Your task to perform on an android device: Show me popular games on the Play Store Image 0: 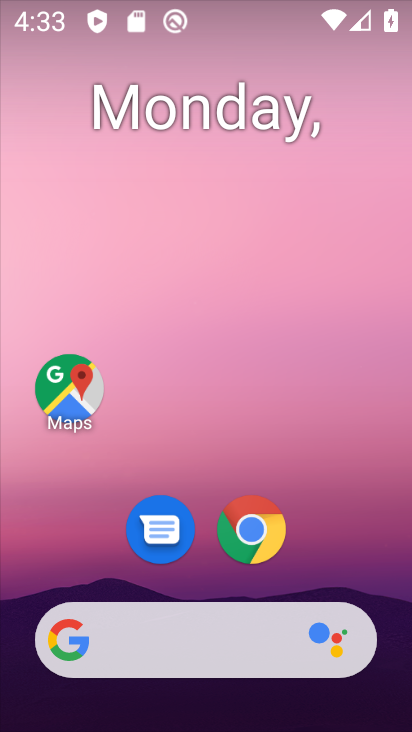
Step 0: drag from (373, 544) to (246, 74)
Your task to perform on an android device: Show me popular games on the Play Store Image 1: 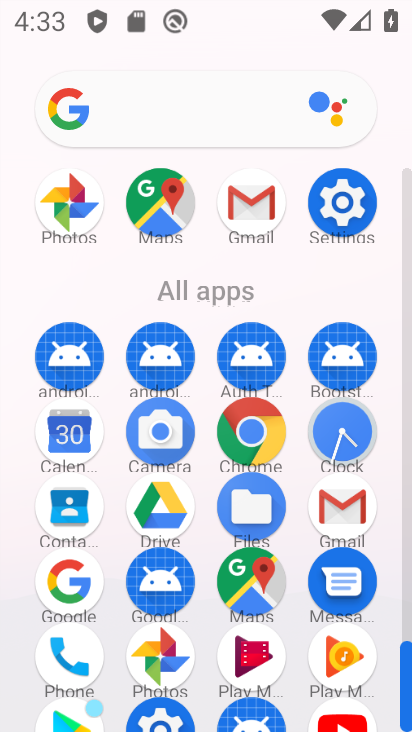
Step 1: click (60, 717)
Your task to perform on an android device: Show me popular games on the Play Store Image 2: 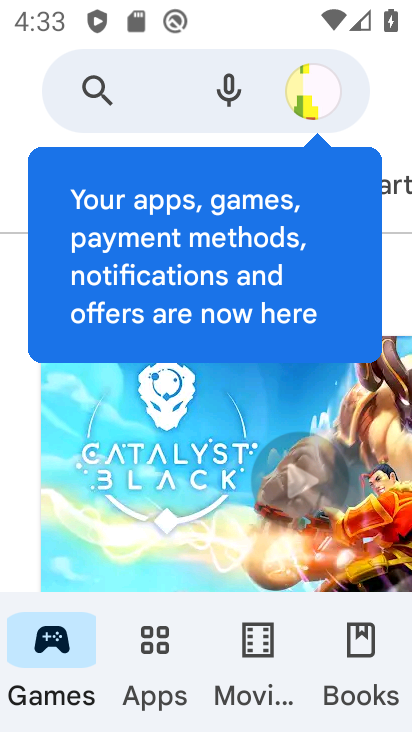
Step 2: drag from (258, 590) to (236, 188)
Your task to perform on an android device: Show me popular games on the Play Store Image 3: 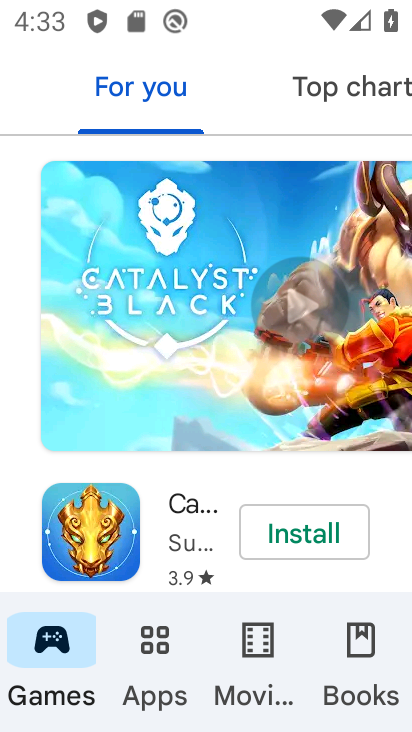
Step 3: drag from (203, 574) to (158, 251)
Your task to perform on an android device: Show me popular games on the Play Store Image 4: 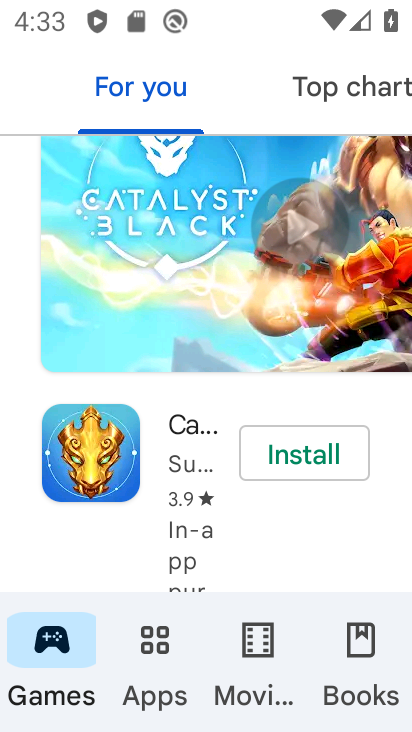
Step 4: drag from (250, 565) to (217, 157)
Your task to perform on an android device: Show me popular games on the Play Store Image 5: 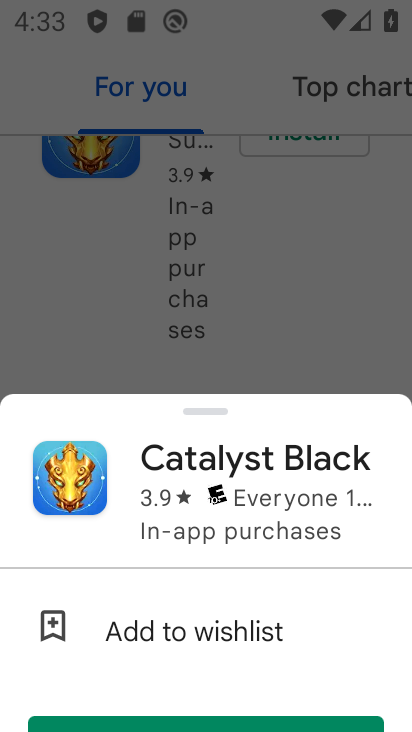
Step 5: click (288, 383)
Your task to perform on an android device: Show me popular games on the Play Store Image 6: 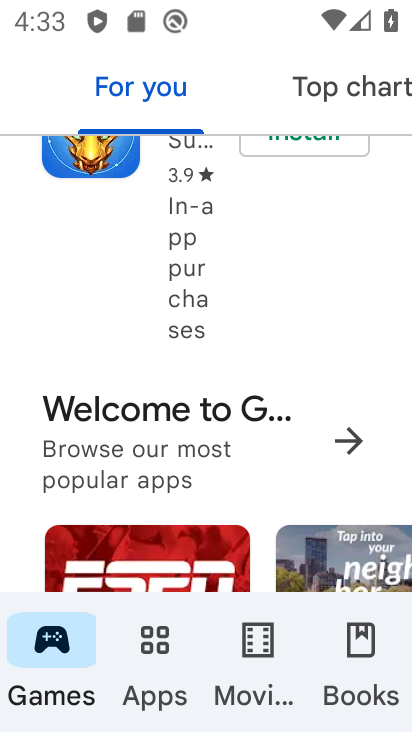
Step 6: drag from (280, 422) to (240, 171)
Your task to perform on an android device: Show me popular games on the Play Store Image 7: 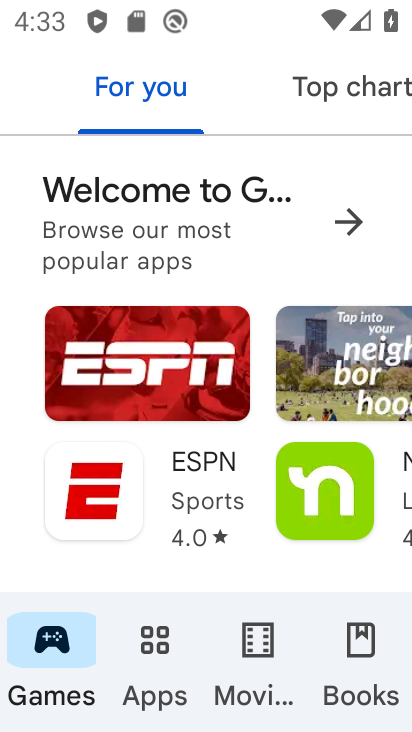
Step 7: drag from (256, 574) to (238, 100)
Your task to perform on an android device: Show me popular games on the Play Store Image 8: 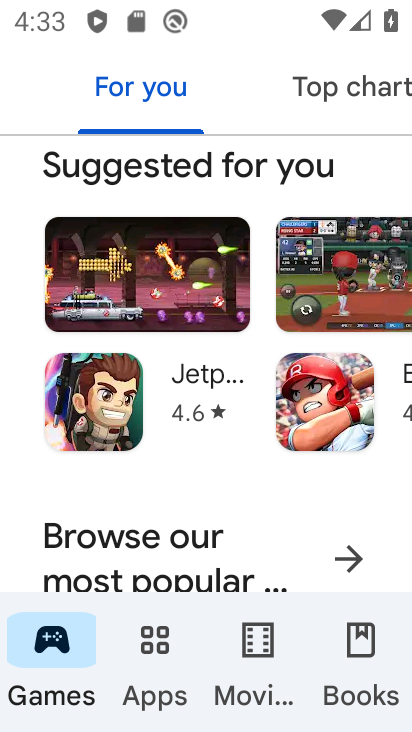
Step 8: drag from (238, 100) to (232, 21)
Your task to perform on an android device: Show me popular games on the Play Store Image 9: 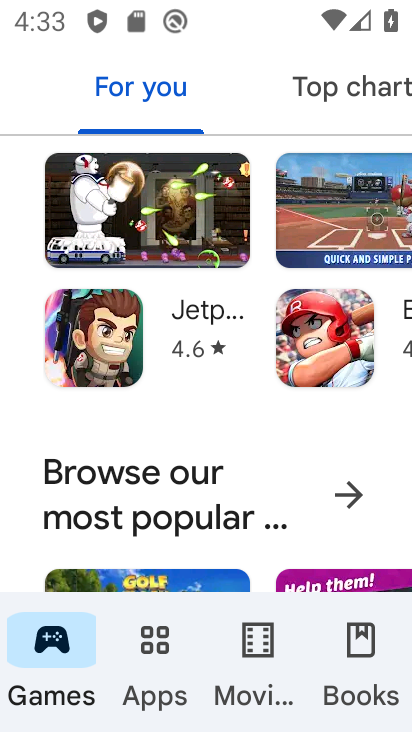
Step 9: click (287, 493)
Your task to perform on an android device: Show me popular games on the Play Store Image 10: 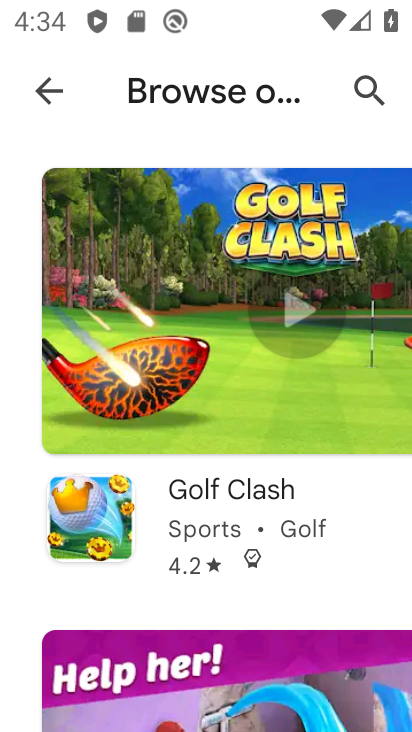
Step 10: task complete